Your task to perform on an android device: Is it going to rain tomorrow? Image 0: 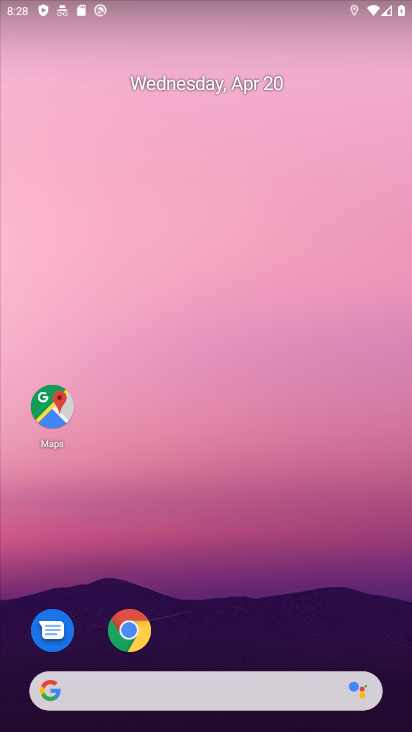
Step 0: click (154, 685)
Your task to perform on an android device: Is it going to rain tomorrow? Image 1: 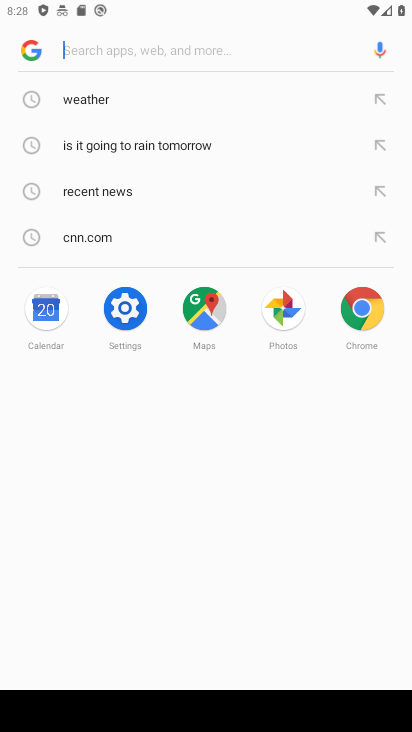
Step 1: click (73, 100)
Your task to perform on an android device: Is it going to rain tomorrow? Image 2: 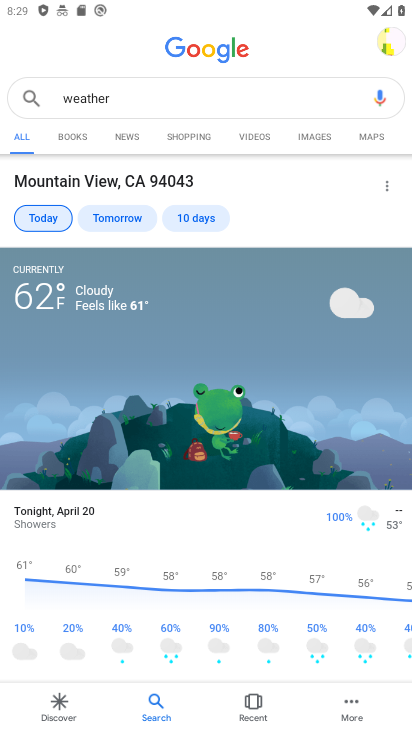
Step 2: task complete